Your task to perform on an android device: check data usage Image 0: 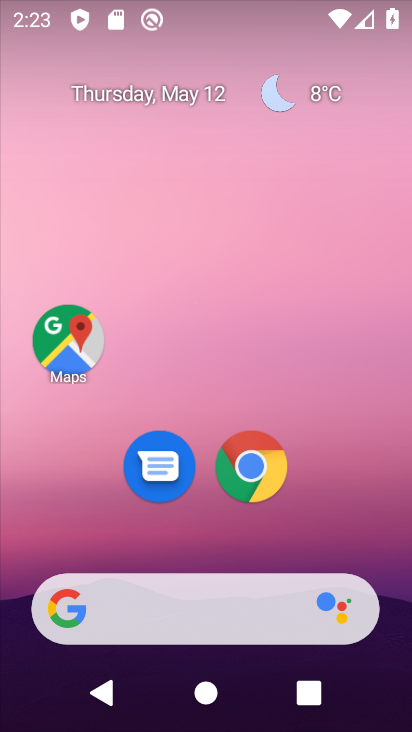
Step 0: drag from (355, 15) to (365, 437)
Your task to perform on an android device: check data usage Image 1: 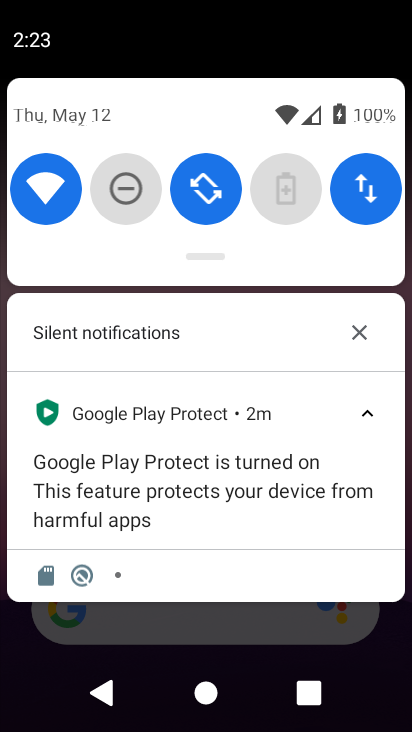
Step 1: click (375, 192)
Your task to perform on an android device: check data usage Image 2: 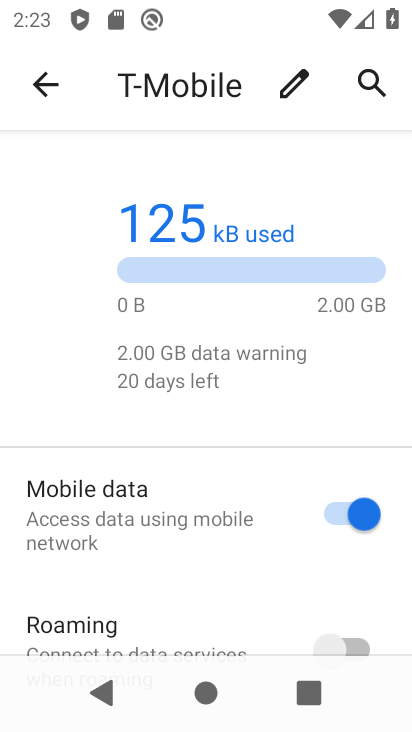
Step 2: task complete